Your task to perform on an android device: Go to notification settings Image 0: 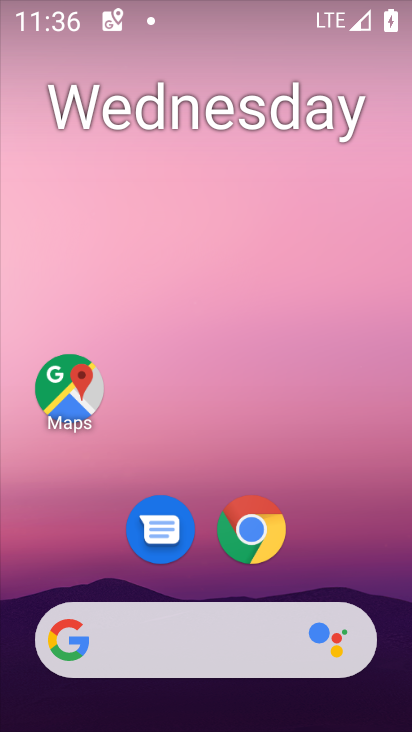
Step 0: drag from (397, 619) to (295, 84)
Your task to perform on an android device: Go to notification settings Image 1: 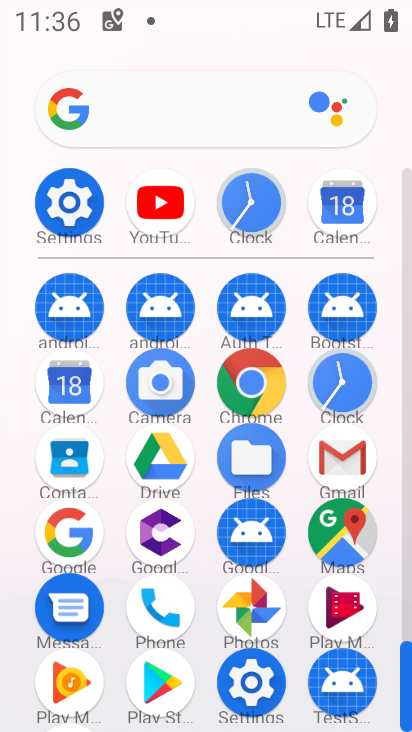
Step 1: click (407, 618)
Your task to perform on an android device: Go to notification settings Image 2: 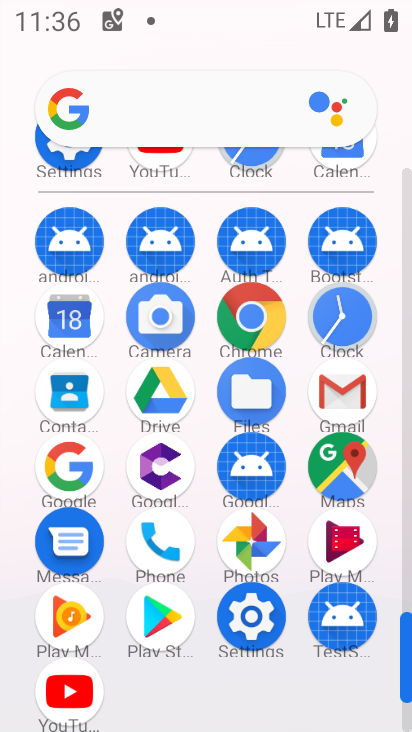
Step 2: click (254, 615)
Your task to perform on an android device: Go to notification settings Image 3: 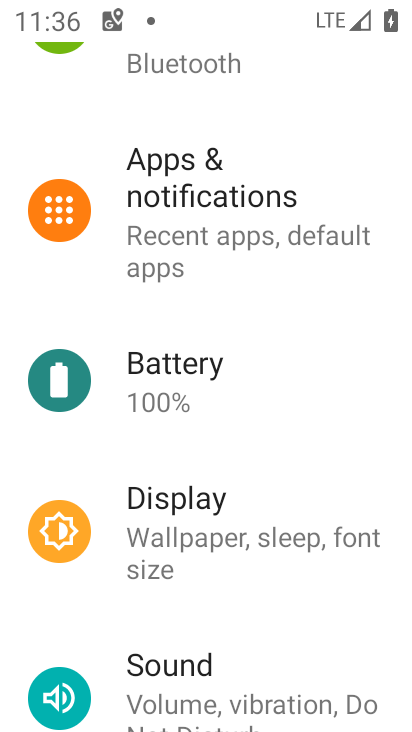
Step 3: click (221, 177)
Your task to perform on an android device: Go to notification settings Image 4: 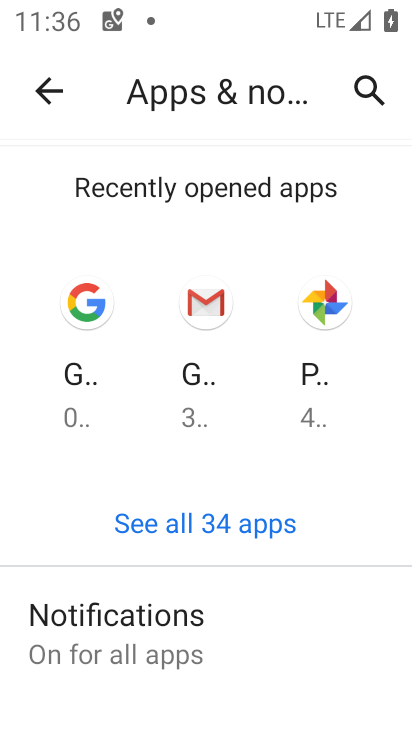
Step 4: drag from (211, 662) to (301, 246)
Your task to perform on an android device: Go to notification settings Image 5: 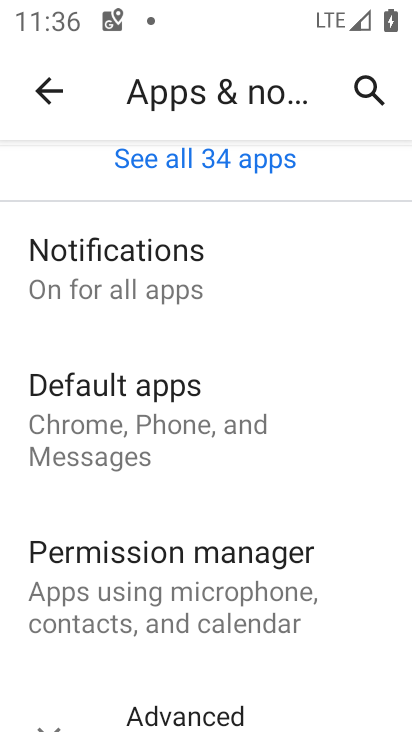
Step 5: drag from (275, 670) to (263, 257)
Your task to perform on an android device: Go to notification settings Image 6: 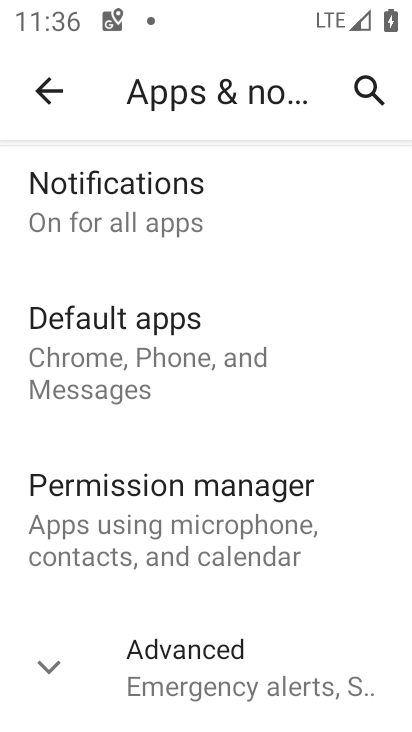
Step 6: click (48, 666)
Your task to perform on an android device: Go to notification settings Image 7: 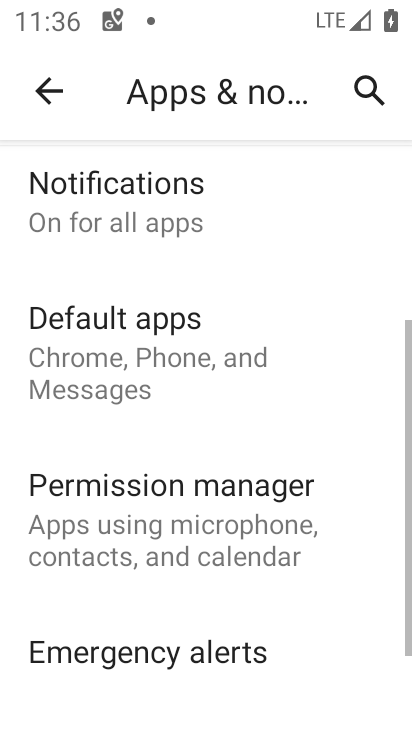
Step 7: task complete